Your task to perform on an android device: turn off javascript in the chrome app Image 0: 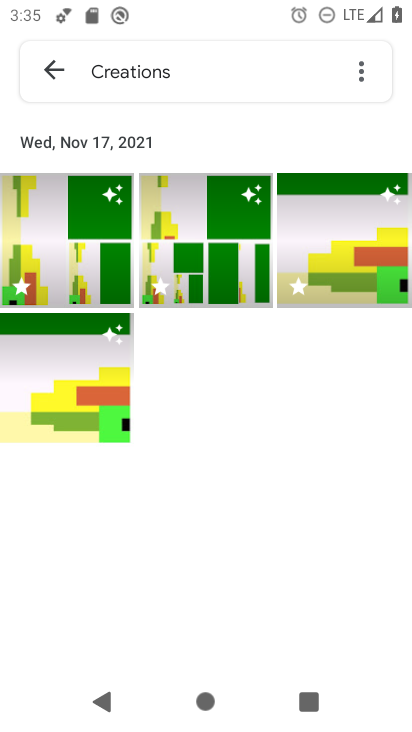
Step 0: press home button
Your task to perform on an android device: turn off javascript in the chrome app Image 1: 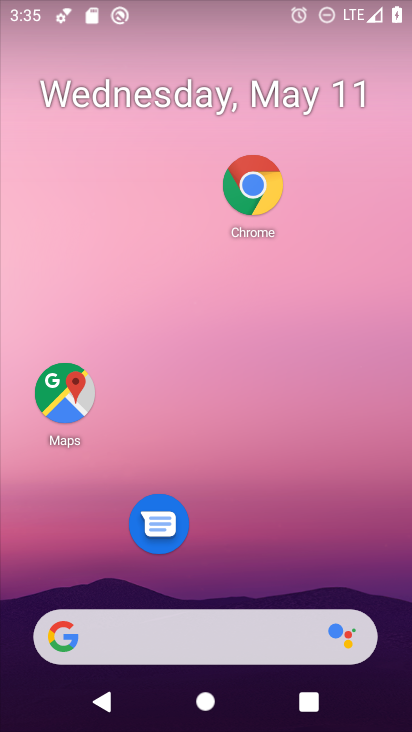
Step 1: click (257, 177)
Your task to perform on an android device: turn off javascript in the chrome app Image 2: 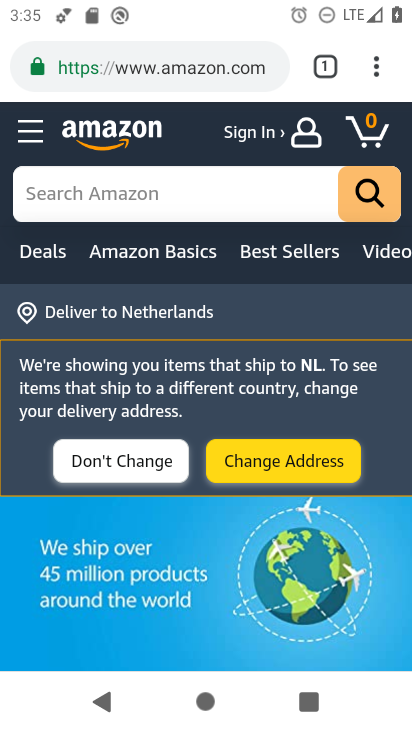
Step 2: click (372, 66)
Your task to perform on an android device: turn off javascript in the chrome app Image 3: 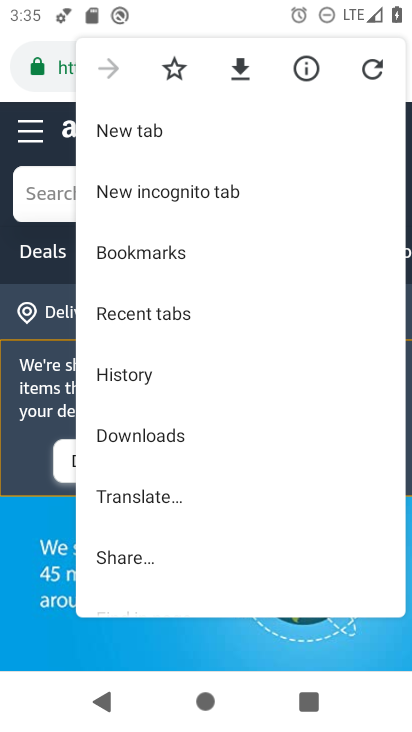
Step 3: drag from (234, 480) to (252, 116)
Your task to perform on an android device: turn off javascript in the chrome app Image 4: 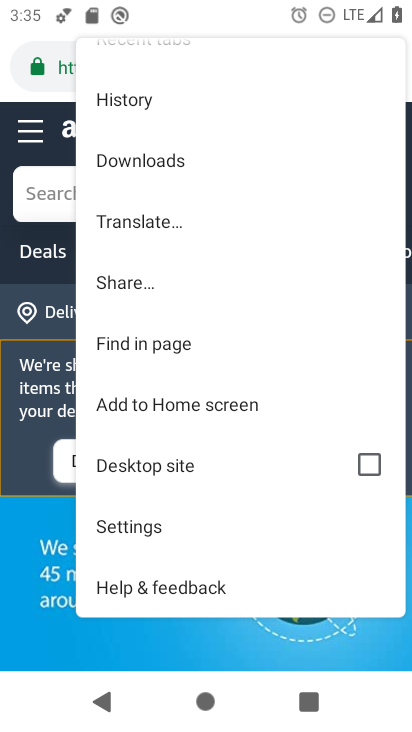
Step 4: click (180, 520)
Your task to perform on an android device: turn off javascript in the chrome app Image 5: 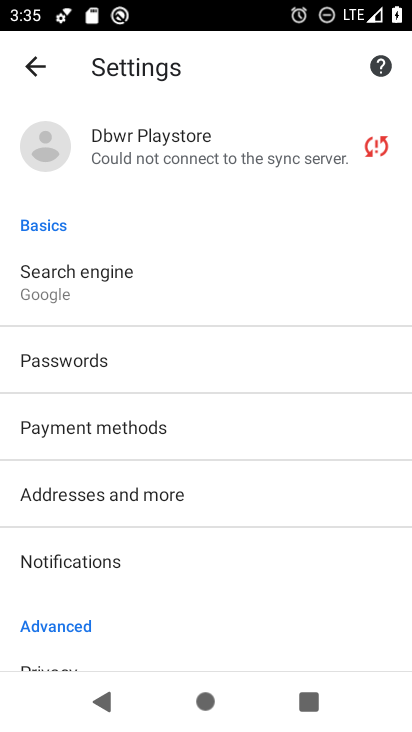
Step 5: drag from (220, 593) to (252, 268)
Your task to perform on an android device: turn off javascript in the chrome app Image 6: 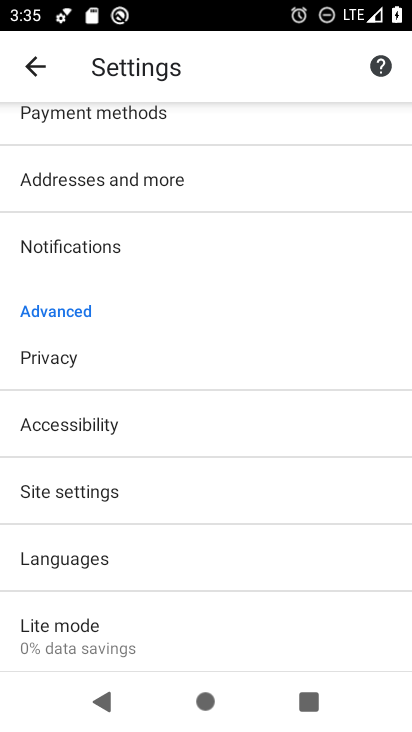
Step 6: click (165, 496)
Your task to perform on an android device: turn off javascript in the chrome app Image 7: 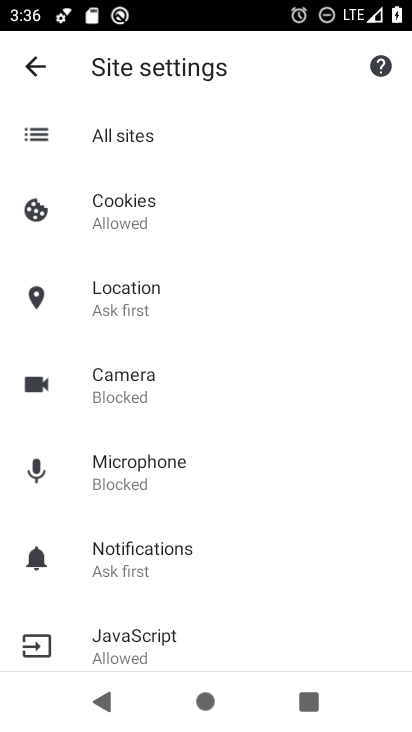
Step 7: click (202, 639)
Your task to perform on an android device: turn off javascript in the chrome app Image 8: 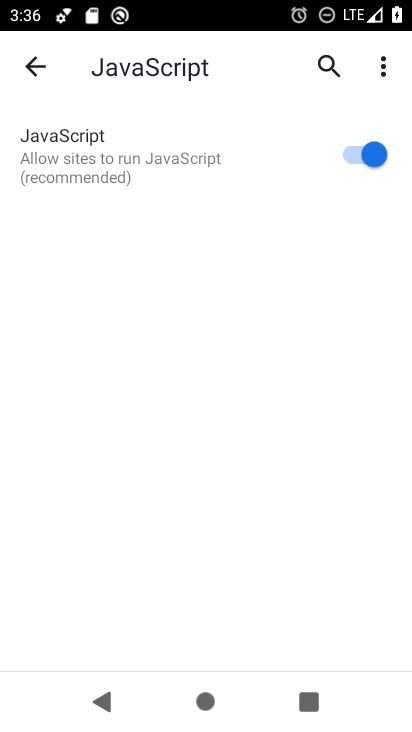
Step 8: click (343, 147)
Your task to perform on an android device: turn off javascript in the chrome app Image 9: 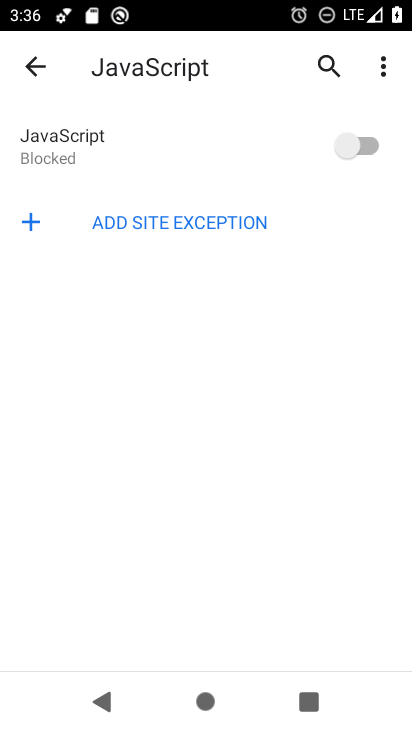
Step 9: task complete